Your task to perform on an android device: manage bookmarks in the chrome app Image 0: 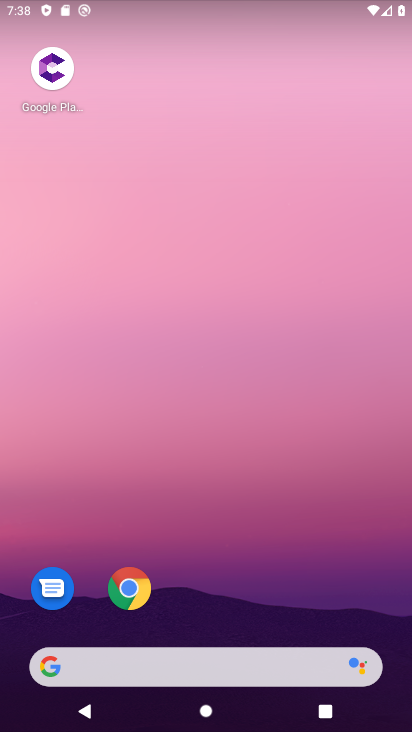
Step 0: drag from (298, 629) to (308, 108)
Your task to perform on an android device: manage bookmarks in the chrome app Image 1: 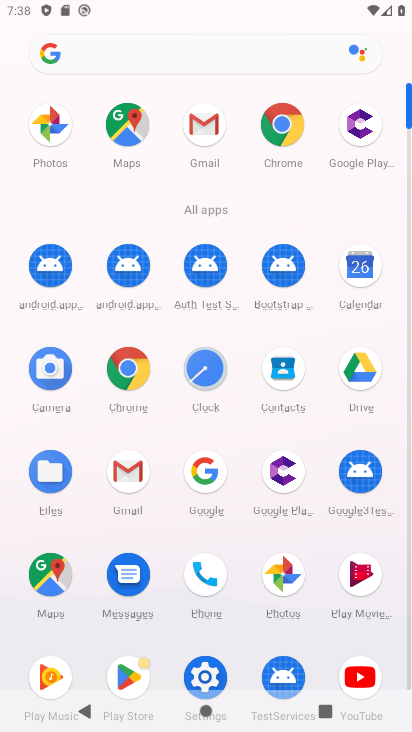
Step 1: click (286, 128)
Your task to perform on an android device: manage bookmarks in the chrome app Image 2: 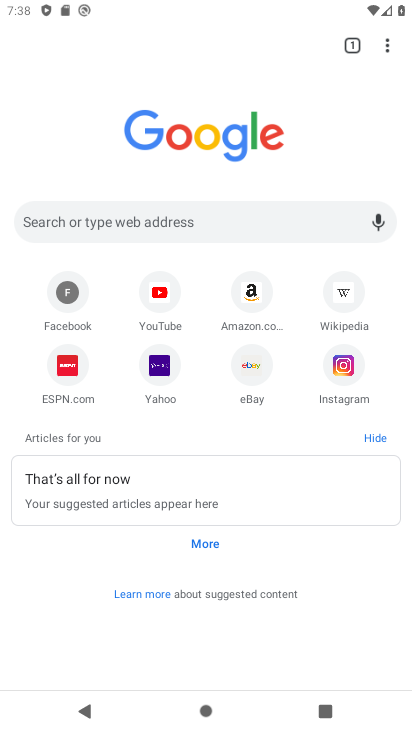
Step 2: drag from (388, 43) to (263, 179)
Your task to perform on an android device: manage bookmarks in the chrome app Image 3: 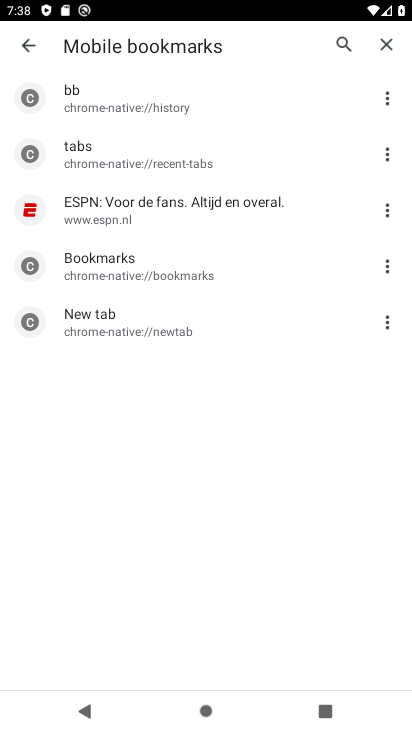
Step 3: click (385, 322)
Your task to perform on an android device: manage bookmarks in the chrome app Image 4: 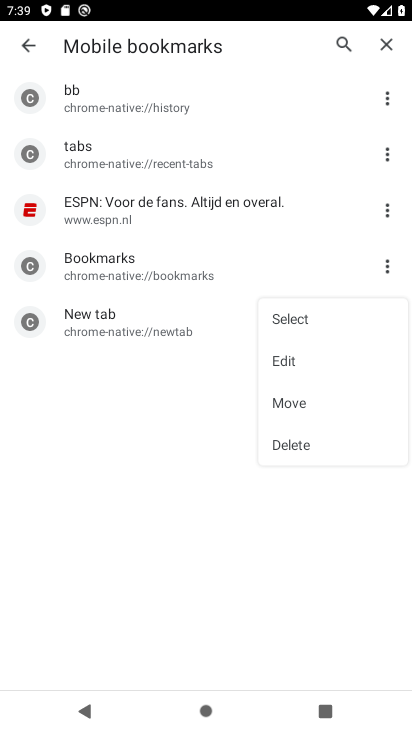
Step 4: click (301, 449)
Your task to perform on an android device: manage bookmarks in the chrome app Image 5: 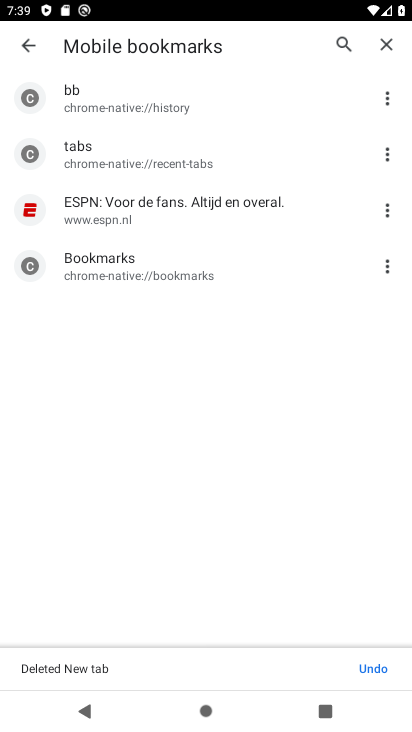
Step 5: task complete